Your task to perform on an android device: What's a good restaurant in New Jersey? Image 0: 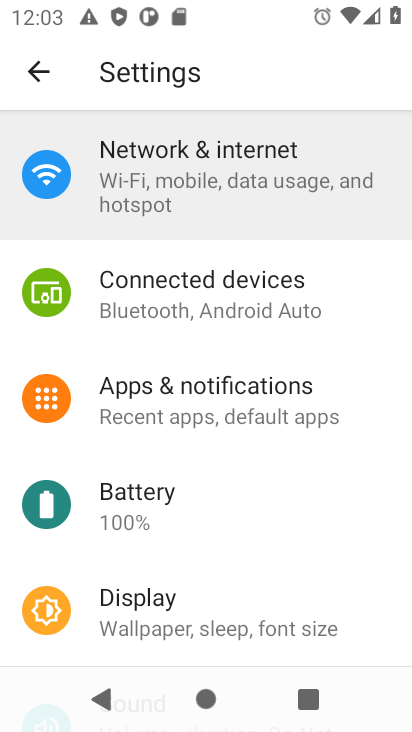
Step 0: press home button
Your task to perform on an android device: What's a good restaurant in New Jersey? Image 1: 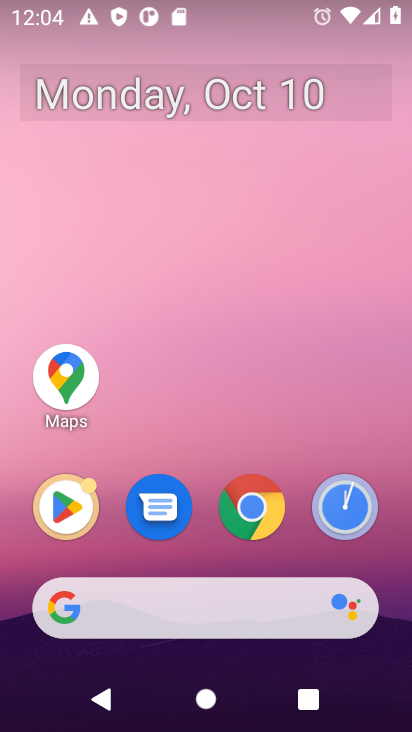
Step 1: click (264, 598)
Your task to perform on an android device: What's a good restaurant in New Jersey? Image 2: 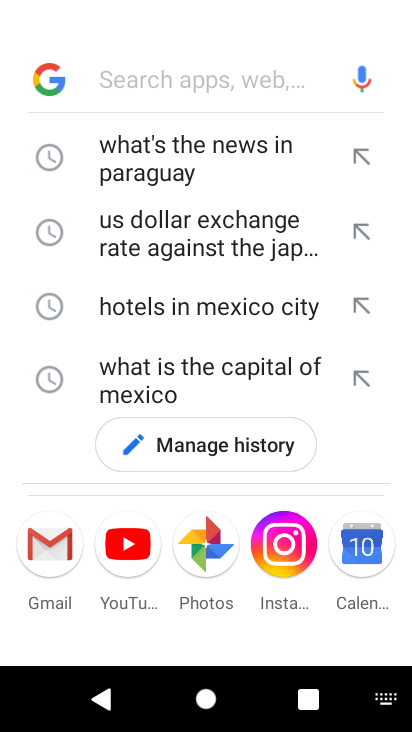
Step 2: press enter
Your task to perform on an android device: What's a good restaurant in New Jersey? Image 3: 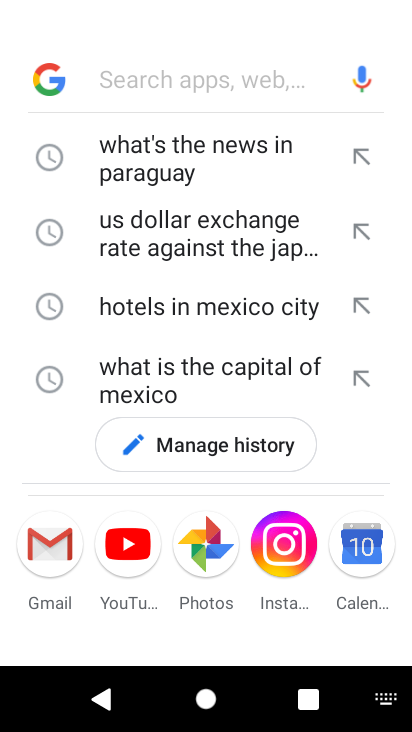
Step 3: type "What's a good restaurant in New Jersey?"
Your task to perform on an android device: What's a good restaurant in New Jersey? Image 4: 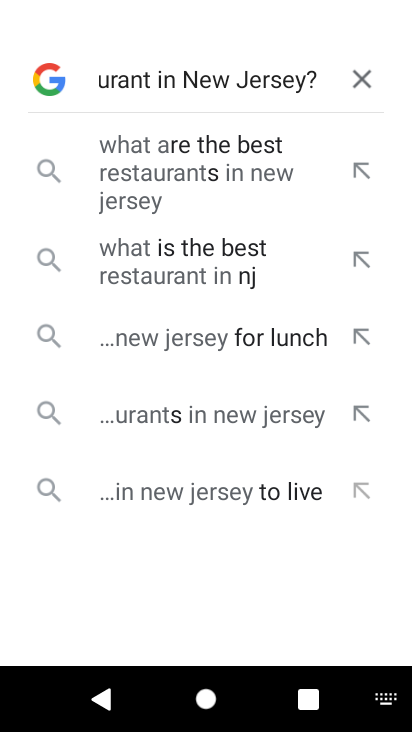
Step 4: press enter
Your task to perform on an android device: What's a good restaurant in New Jersey? Image 5: 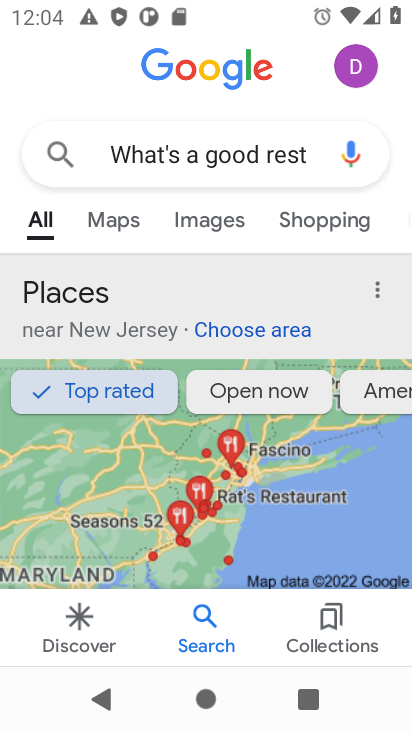
Step 5: task complete